Your task to perform on an android device: uninstall "Google Docs" Image 0: 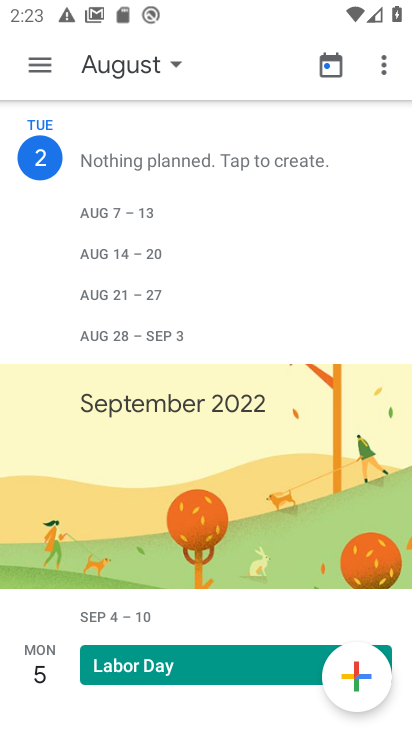
Step 0: press home button
Your task to perform on an android device: uninstall "Google Docs" Image 1: 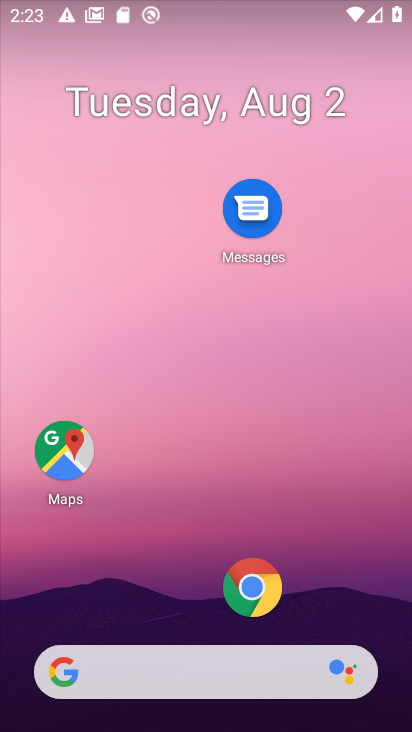
Step 1: drag from (169, 618) to (173, 257)
Your task to perform on an android device: uninstall "Google Docs" Image 2: 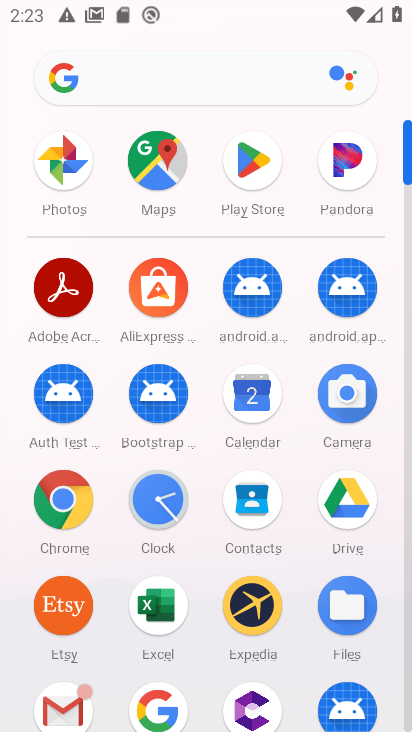
Step 2: click (260, 173)
Your task to perform on an android device: uninstall "Google Docs" Image 3: 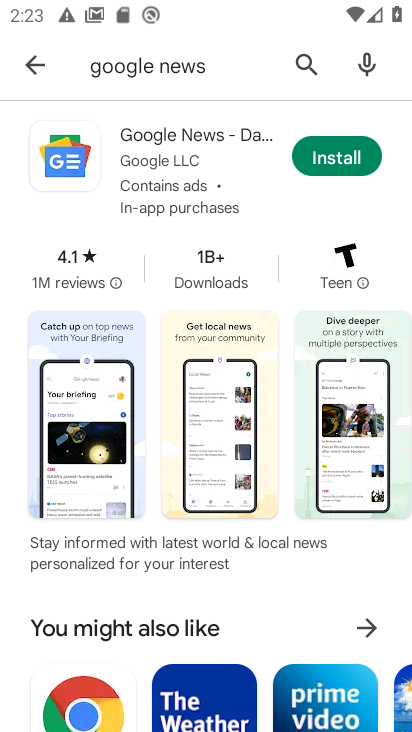
Step 3: click (313, 60)
Your task to perform on an android device: uninstall "Google Docs" Image 4: 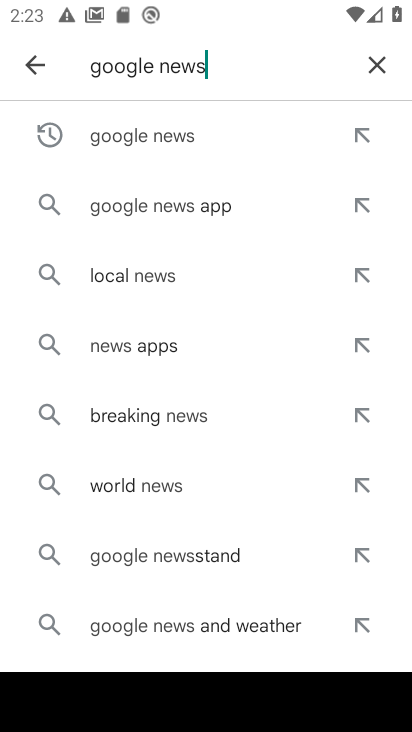
Step 4: click (371, 74)
Your task to perform on an android device: uninstall "Google Docs" Image 5: 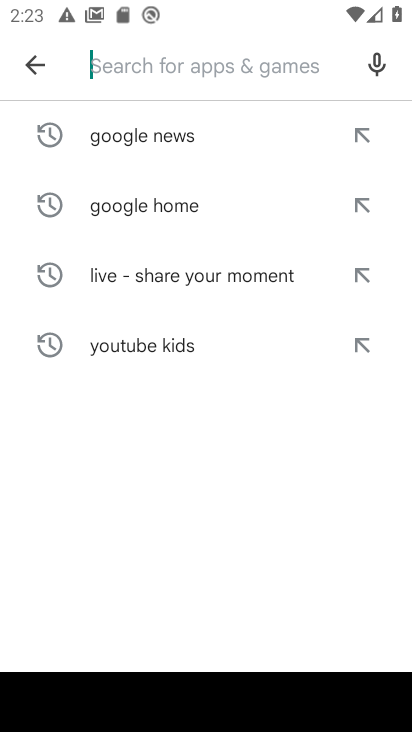
Step 5: type "Google Docs"
Your task to perform on an android device: uninstall "Google Docs" Image 6: 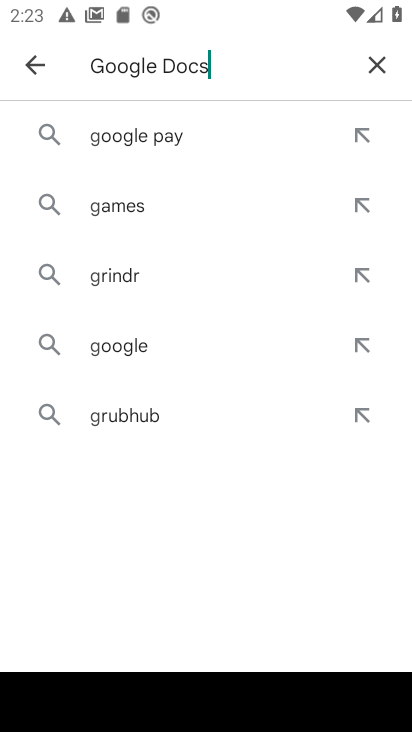
Step 6: type ""
Your task to perform on an android device: uninstall "Google Docs" Image 7: 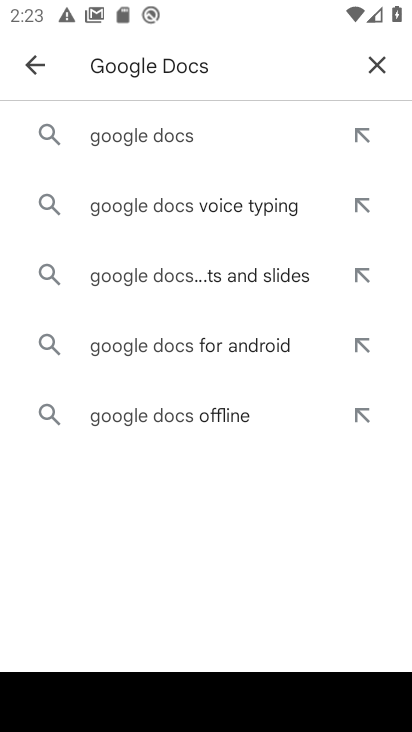
Step 7: click (183, 153)
Your task to perform on an android device: uninstall "Google Docs" Image 8: 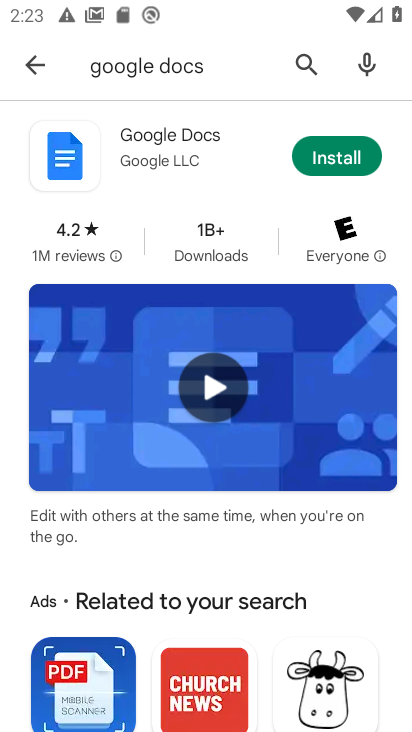
Step 8: task complete